Your task to perform on an android device: Open the calendar app, open the side menu, and click the "Day" option Image 0: 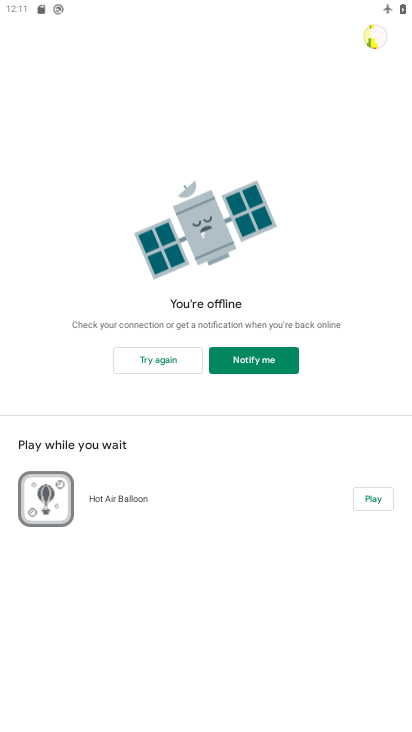
Step 0: press home button
Your task to perform on an android device: Open the calendar app, open the side menu, and click the "Day" option Image 1: 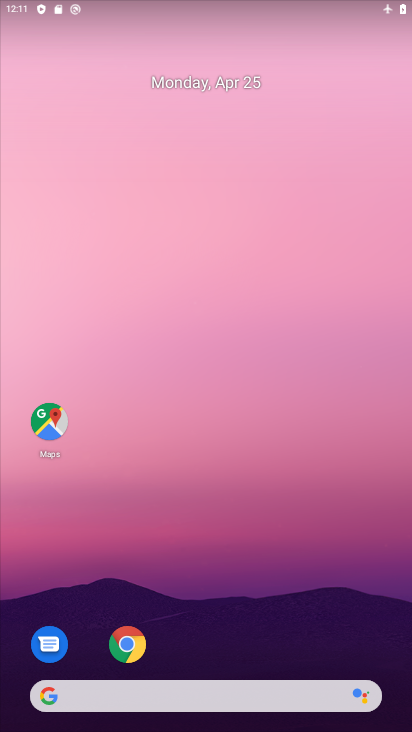
Step 1: drag from (260, 603) to (237, 191)
Your task to perform on an android device: Open the calendar app, open the side menu, and click the "Day" option Image 2: 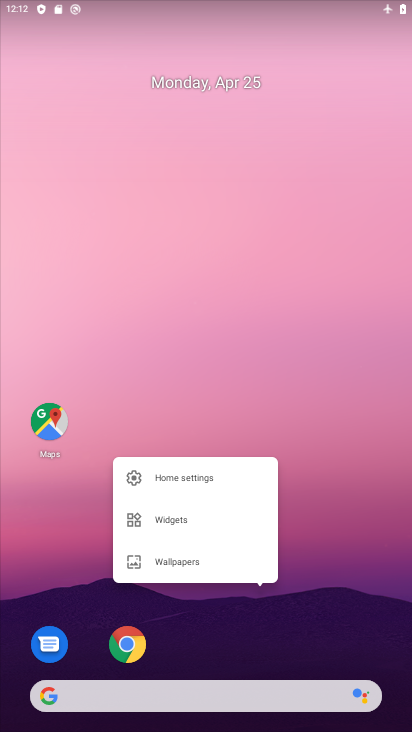
Step 2: click (344, 580)
Your task to perform on an android device: Open the calendar app, open the side menu, and click the "Day" option Image 3: 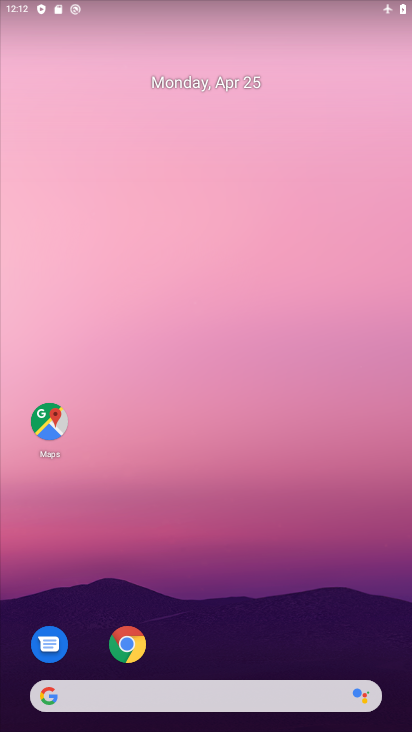
Step 3: drag from (337, 594) to (306, 2)
Your task to perform on an android device: Open the calendar app, open the side menu, and click the "Day" option Image 4: 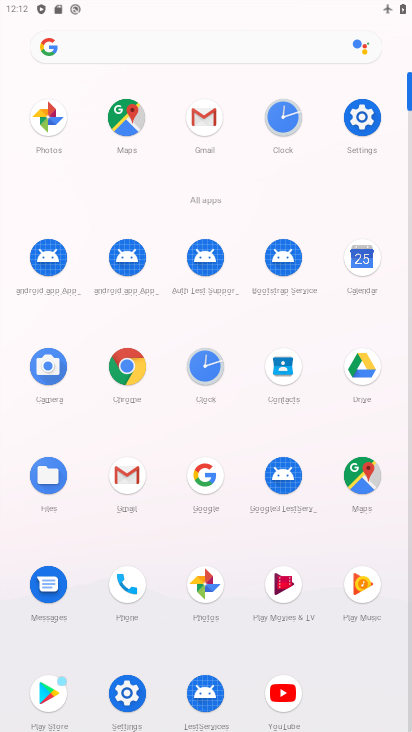
Step 4: click (280, 361)
Your task to perform on an android device: Open the calendar app, open the side menu, and click the "Day" option Image 5: 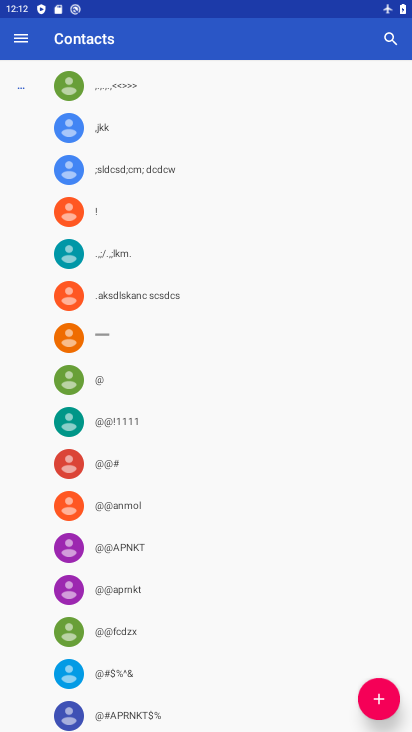
Step 5: press home button
Your task to perform on an android device: Open the calendar app, open the side menu, and click the "Day" option Image 6: 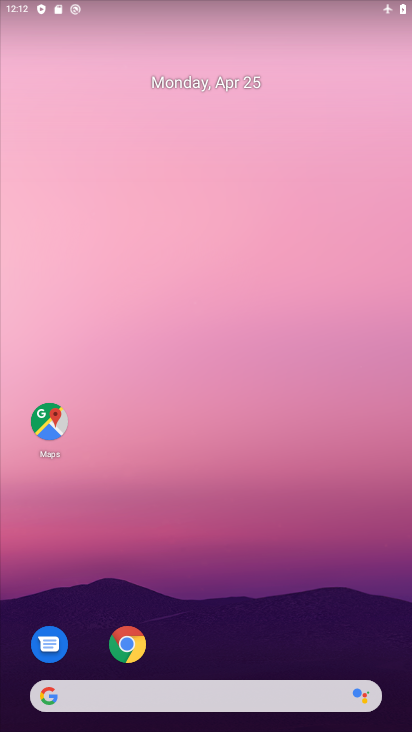
Step 6: drag from (227, 608) to (352, 85)
Your task to perform on an android device: Open the calendar app, open the side menu, and click the "Day" option Image 7: 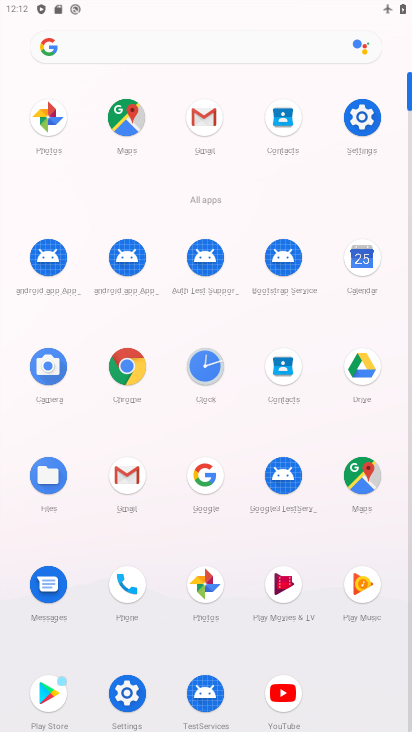
Step 7: click (355, 270)
Your task to perform on an android device: Open the calendar app, open the side menu, and click the "Day" option Image 8: 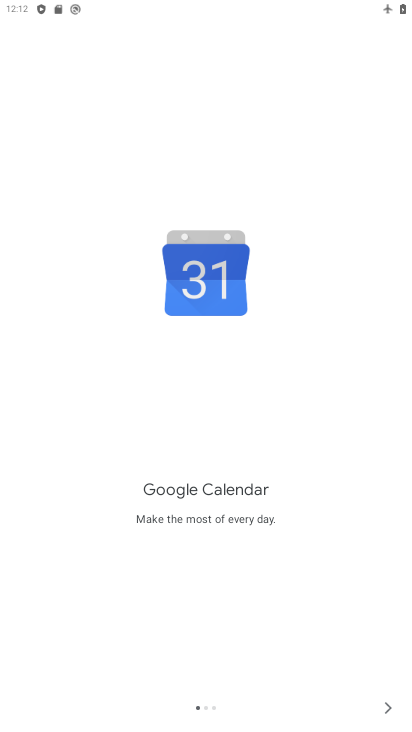
Step 8: click (382, 699)
Your task to perform on an android device: Open the calendar app, open the side menu, and click the "Day" option Image 9: 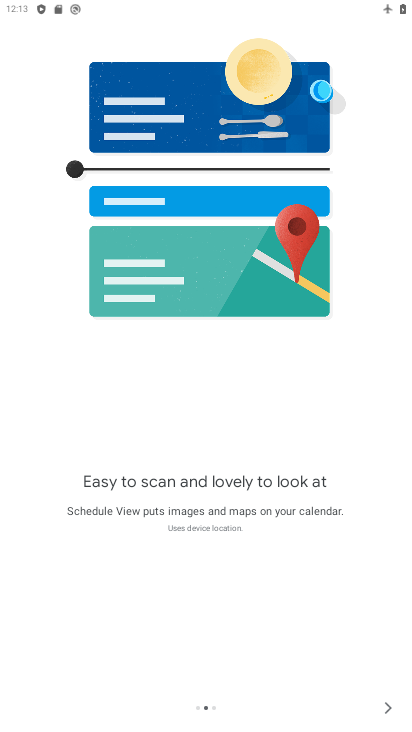
Step 9: click (382, 699)
Your task to perform on an android device: Open the calendar app, open the side menu, and click the "Day" option Image 10: 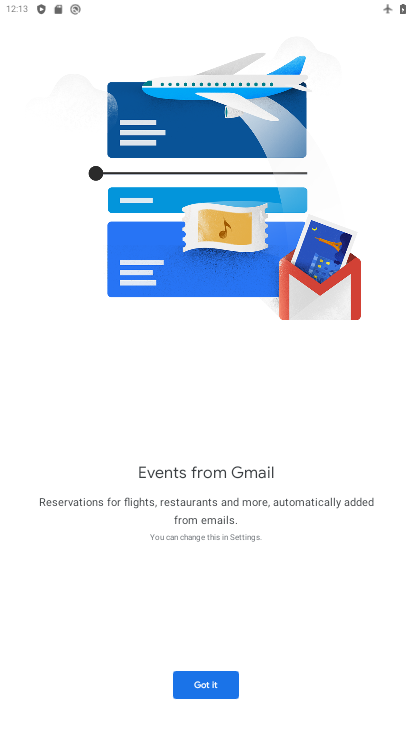
Step 10: click (236, 689)
Your task to perform on an android device: Open the calendar app, open the side menu, and click the "Day" option Image 11: 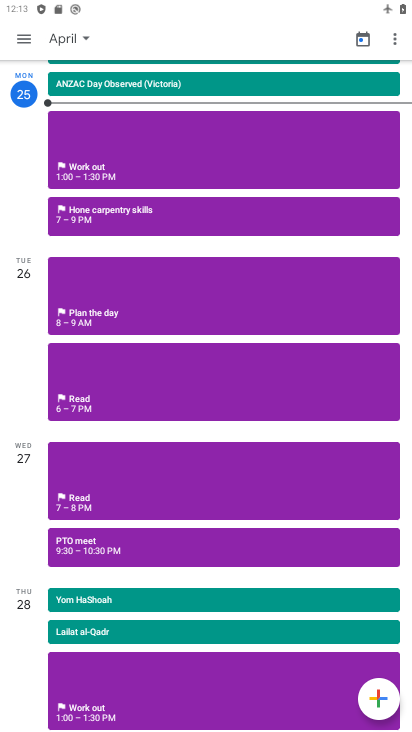
Step 11: click (27, 36)
Your task to perform on an android device: Open the calendar app, open the side menu, and click the "Day" option Image 12: 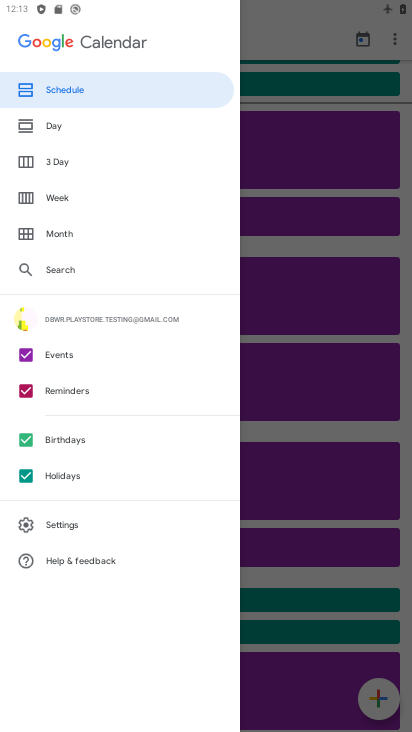
Step 12: click (73, 135)
Your task to perform on an android device: Open the calendar app, open the side menu, and click the "Day" option Image 13: 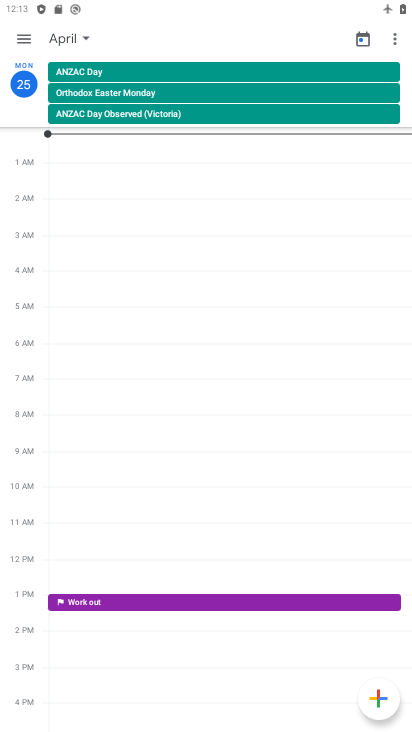
Step 13: task complete